Your task to perform on an android device: add a label to a message in the gmail app Image 0: 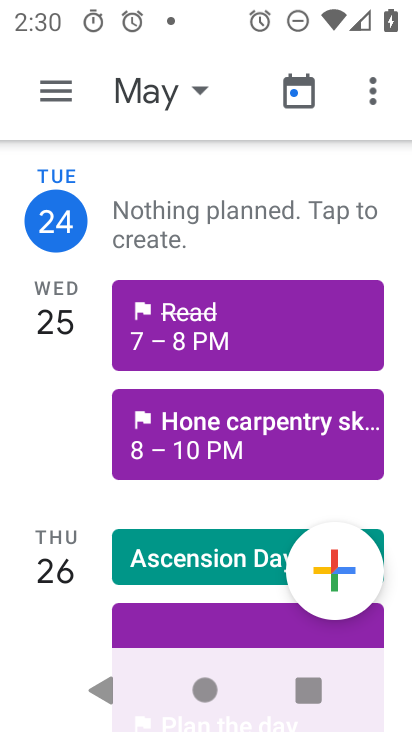
Step 0: press home button
Your task to perform on an android device: add a label to a message in the gmail app Image 1: 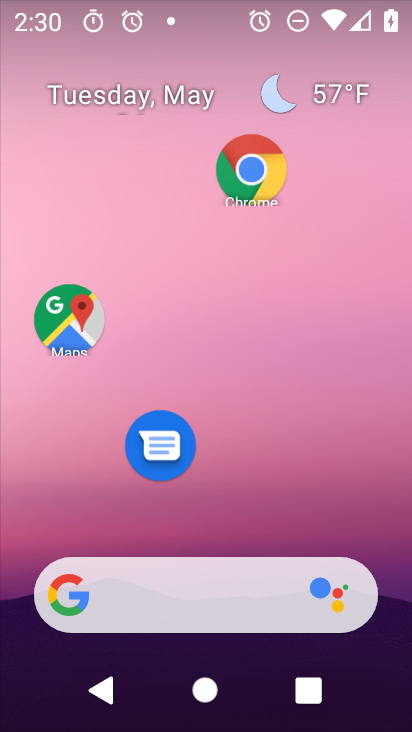
Step 1: drag from (209, 726) to (202, 80)
Your task to perform on an android device: add a label to a message in the gmail app Image 2: 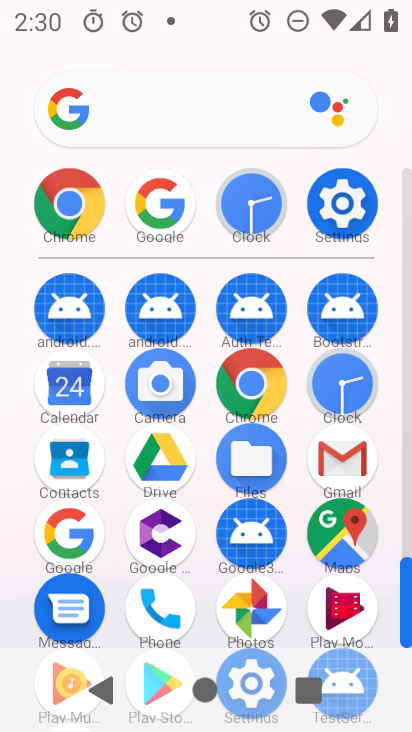
Step 2: click (342, 460)
Your task to perform on an android device: add a label to a message in the gmail app Image 3: 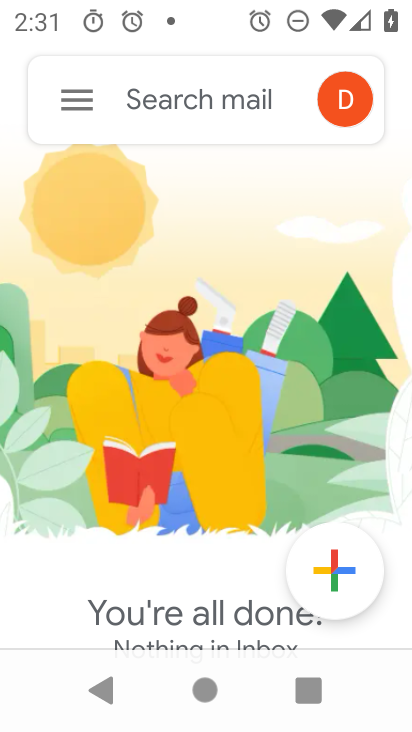
Step 3: task complete